Your task to perform on an android device: Do I have any events today? Image 0: 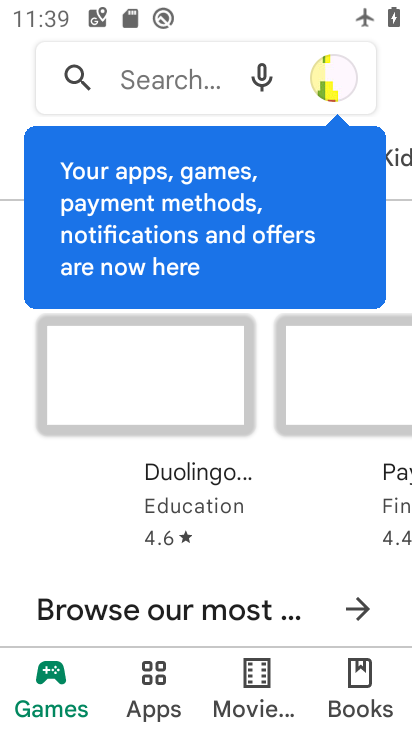
Step 0: press home button
Your task to perform on an android device: Do I have any events today? Image 1: 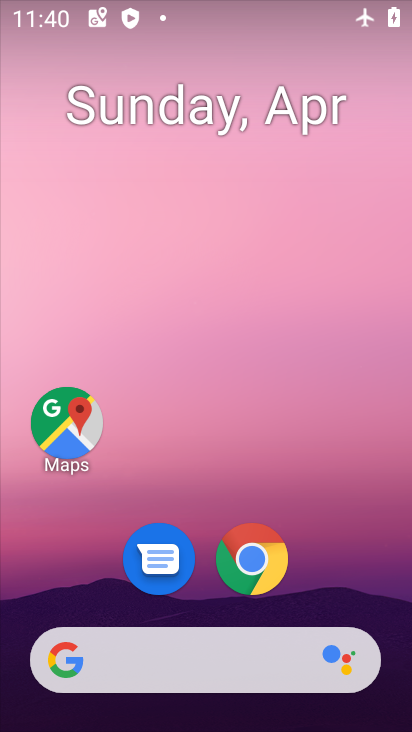
Step 1: drag from (326, 574) to (231, 6)
Your task to perform on an android device: Do I have any events today? Image 2: 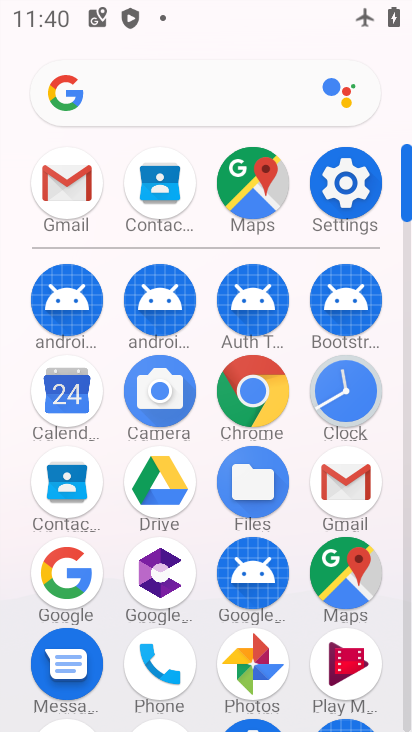
Step 2: click (59, 402)
Your task to perform on an android device: Do I have any events today? Image 3: 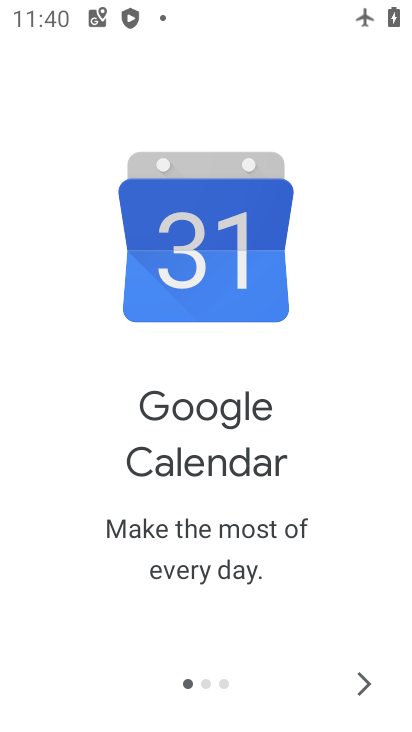
Step 3: click (354, 688)
Your task to perform on an android device: Do I have any events today? Image 4: 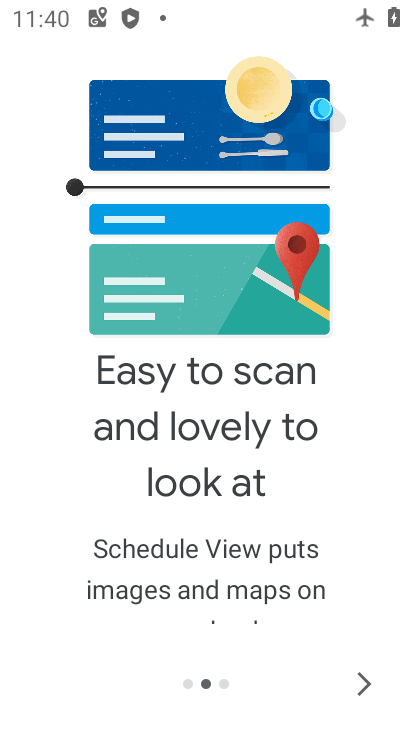
Step 4: click (354, 688)
Your task to perform on an android device: Do I have any events today? Image 5: 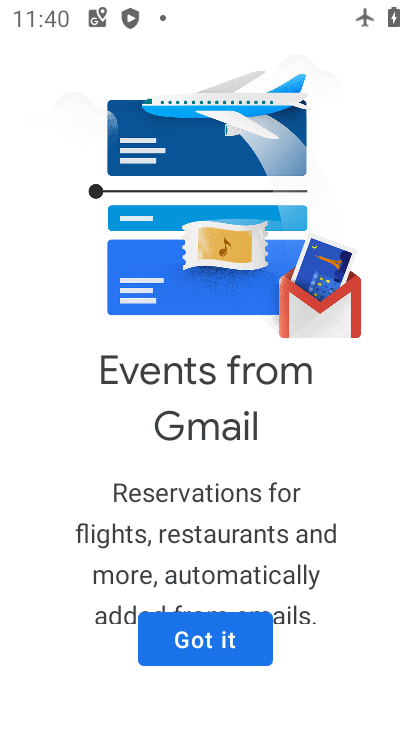
Step 5: click (223, 632)
Your task to perform on an android device: Do I have any events today? Image 6: 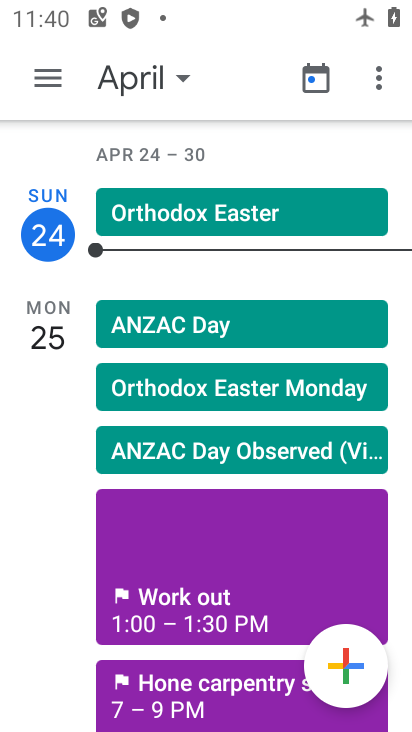
Step 6: click (133, 68)
Your task to perform on an android device: Do I have any events today? Image 7: 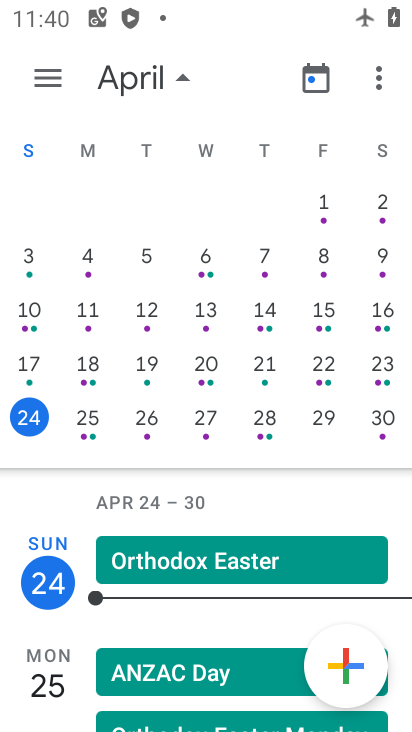
Step 7: click (16, 421)
Your task to perform on an android device: Do I have any events today? Image 8: 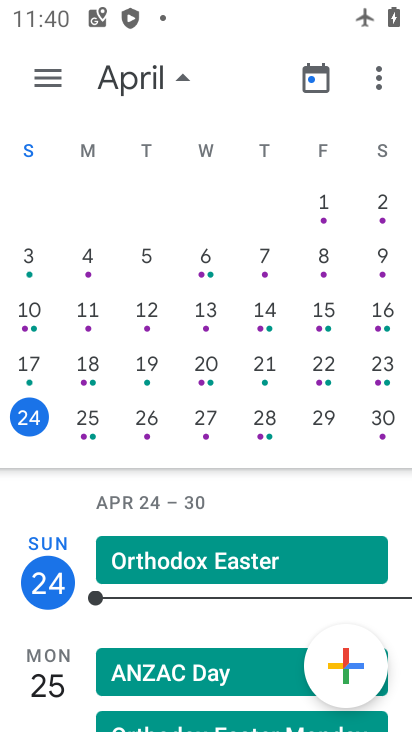
Step 8: task complete